Your task to perform on an android device: Open display settings Image 0: 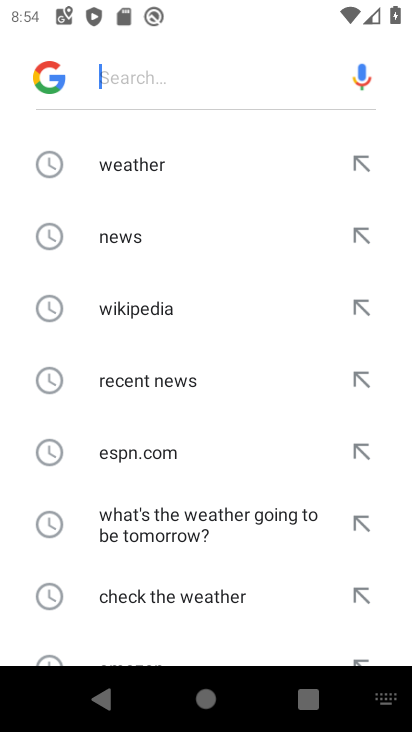
Step 0: press home button
Your task to perform on an android device: Open display settings Image 1: 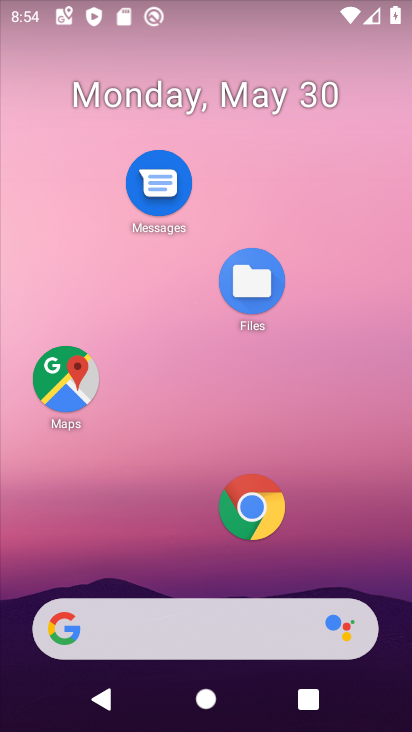
Step 1: drag from (170, 536) to (216, 267)
Your task to perform on an android device: Open display settings Image 2: 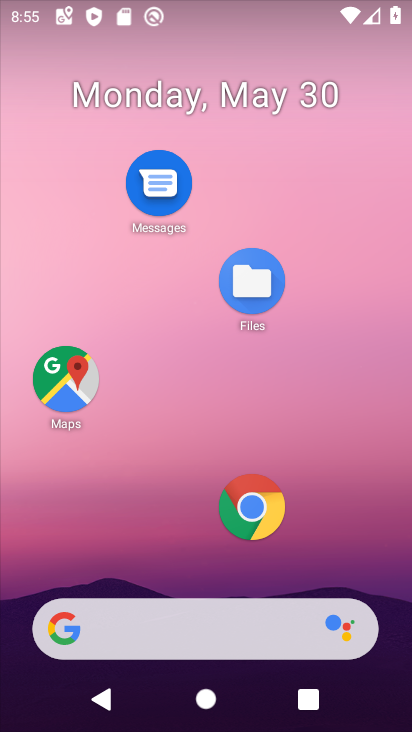
Step 2: drag from (180, 585) to (284, 0)
Your task to perform on an android device: Open display settings Image 3: 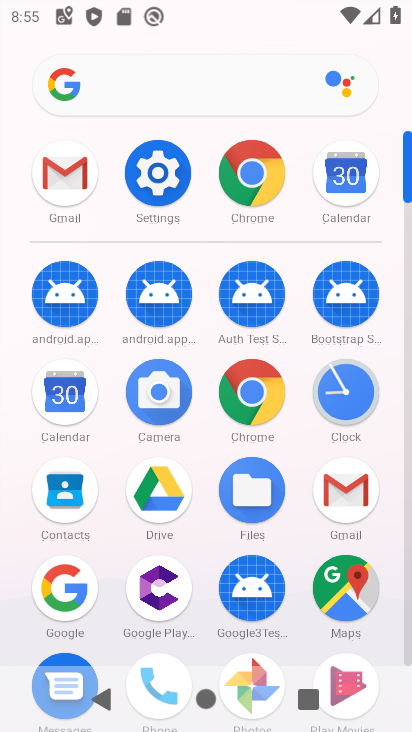
Step 3: click (149, 198)
Your task to perform on an android device: Open display settings Image 4: 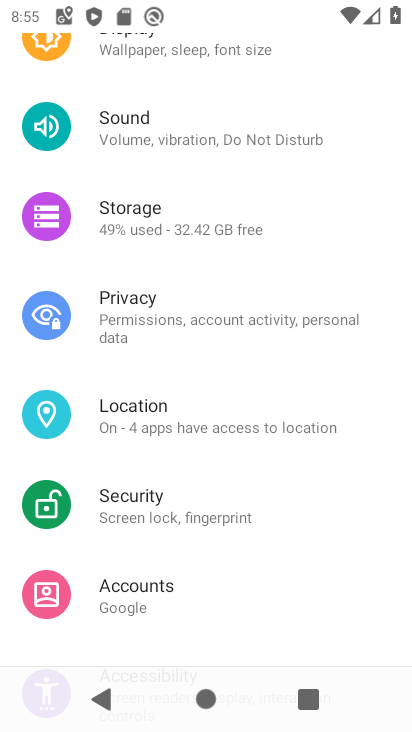
Step 4: drag from (193, 208) to (205, 388)
Your task to perform on an android device: Open display settings Image 5: 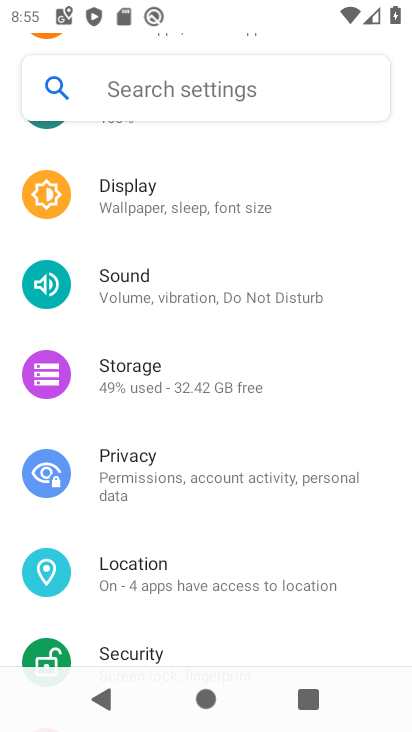
Step 5: click (150, 200)
Your task to perform on an android device: Open display settings Image 6: 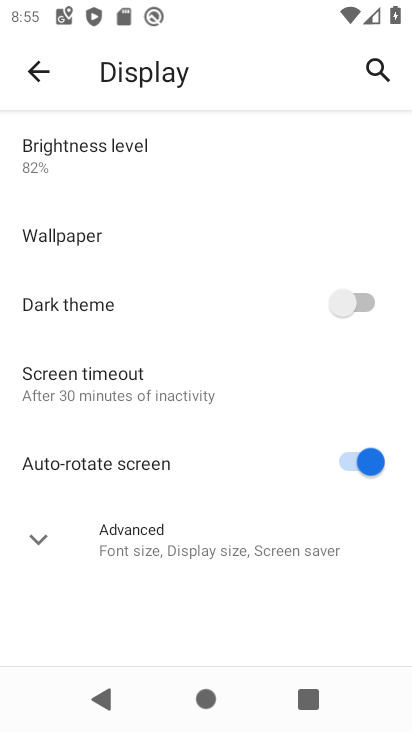
Step 6: task complete